Your task to perform on an android device: change text size in settings app Image 0: 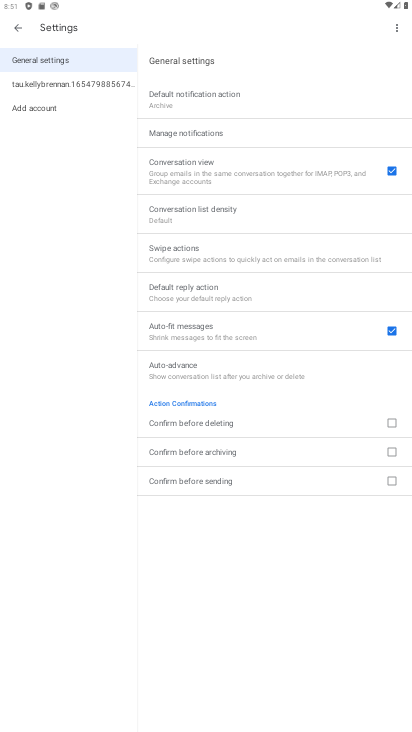
Step 0: press home button
Your task to perform on an android device: change text size in settings app Image 1: 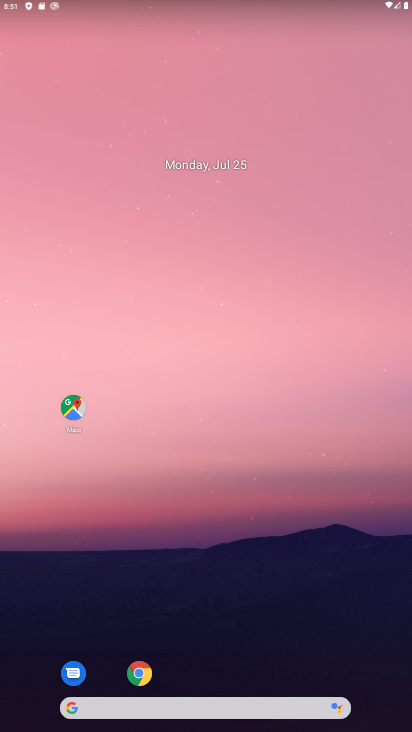
Step 1: drag from (218, 675) to (211, 18)
Your task to perform on an android device: change text size in settings app Image 2: 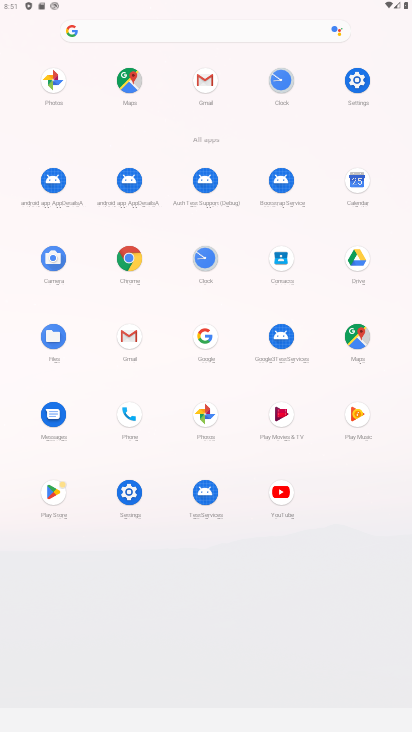
Step 2: click (357, 75)
Your task to perform on an android device: change text size in settings app Image 3: 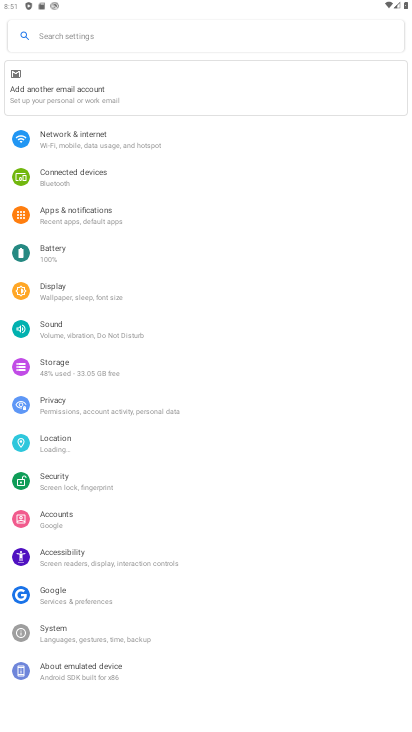
Step 3: click (76, 288)
Your task to perform on an android device: change text size in settings app Image 4: 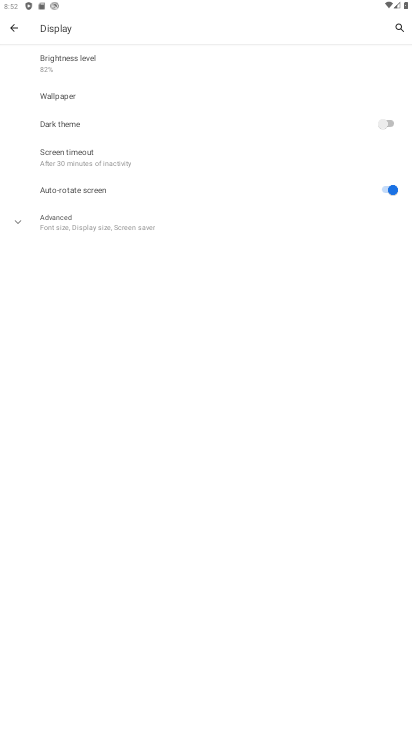
Step 4: click (11, 220)
Your task to perform on an android device: change text size in settings app Image 5: 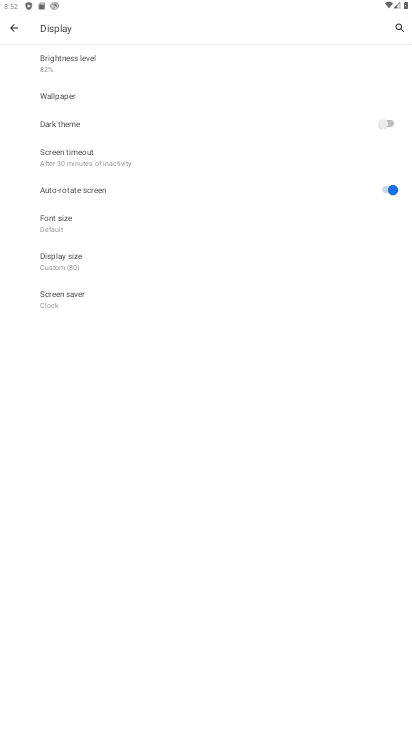
Step 5: click (79, 223)
Your task to perform on an android device: change text size in settings app Image 6: 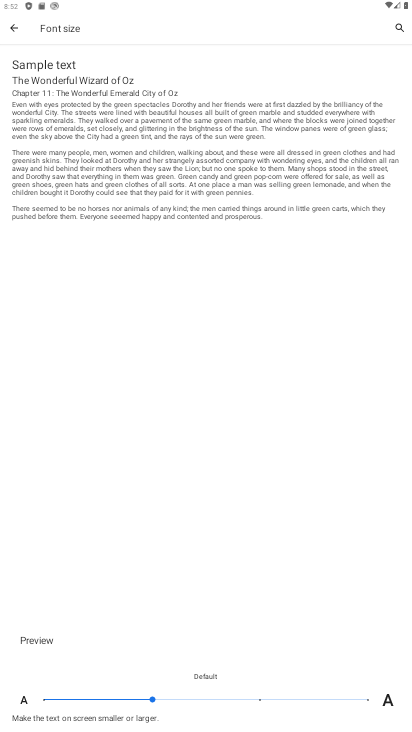
Step 6: click (359, 701)
Your task to perform on an android device: change text size in settings app Image 7: 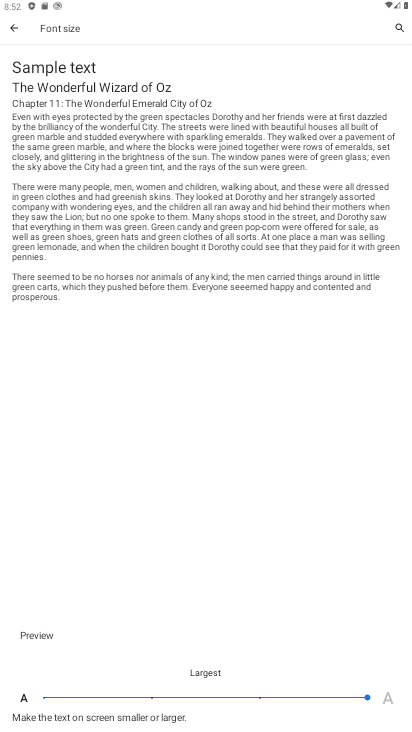
Step 7: task complete